Your task to perform on an android device: Open settings Image 0: 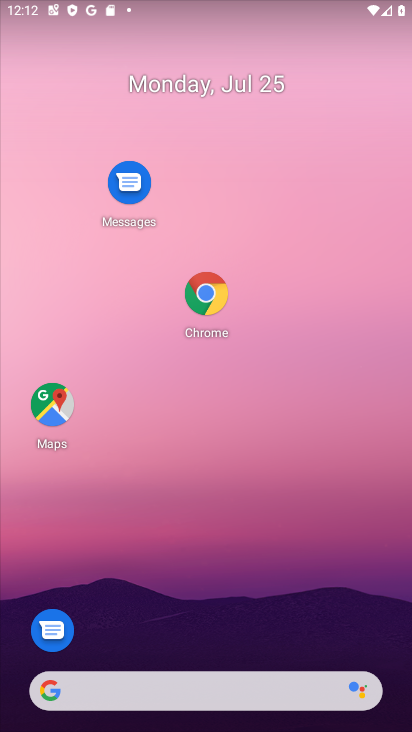
Step 0: press home button
Your task to perform on an android device: Open settings Image 1: 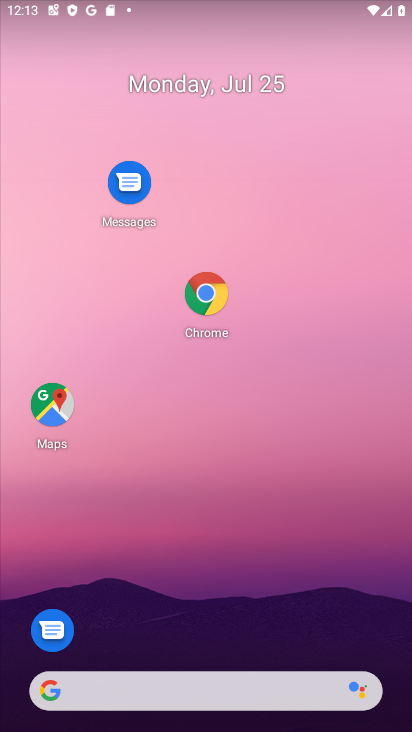
Step 1: drag from (114, 605) to (198, 6)
Your task to perform on an android device: Open settings Image 2: 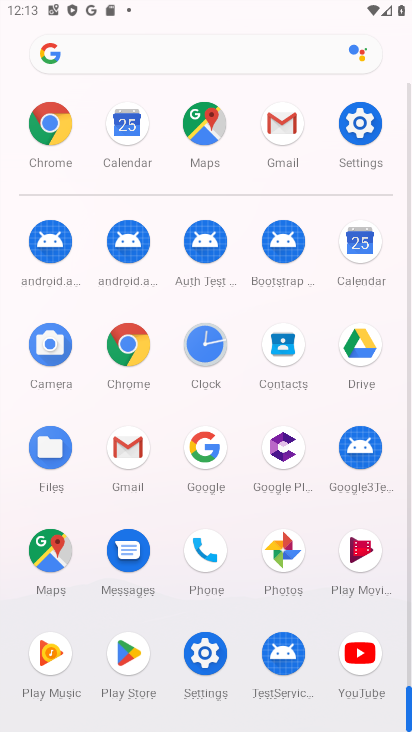
Step 2: click (204, 637)
Your task to perform on an android device: Open settings Image 3: 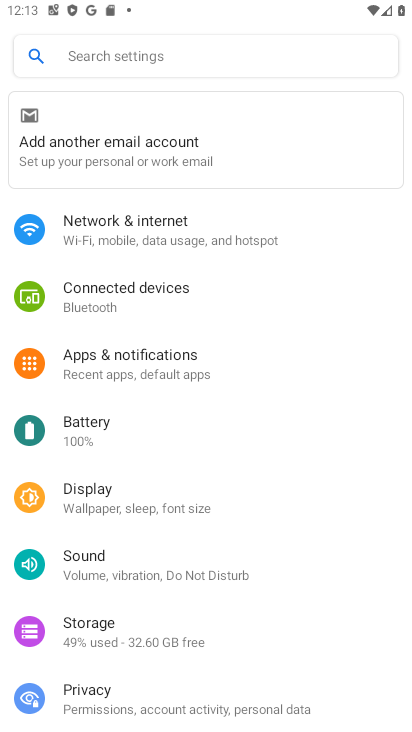
Step 3: task complete